Your task to perform on an android device: What is the recent news? Image 0: 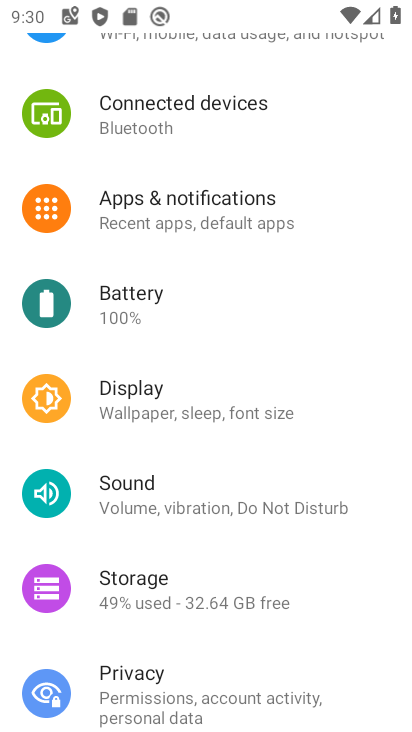
Step 0: press home button
Your task to perform on an android device: What is the recent news? Image 1: 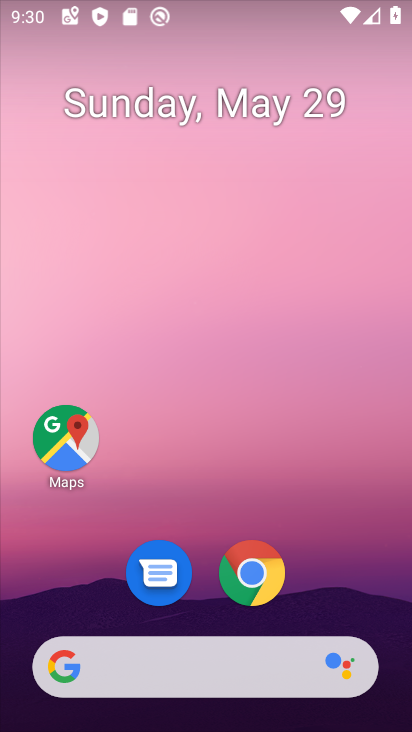
Step 1: drag from (325, 554) to (268, 15)
Your task to perform on an android device: What is the recent news? Image 2: 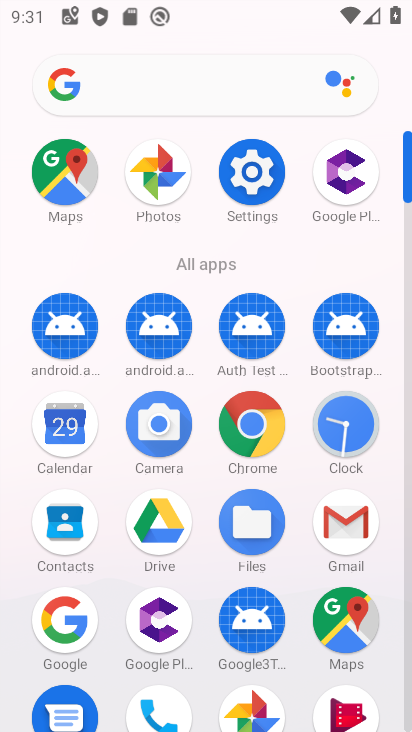
Step 2: click (56, 627)
Your task to perform on an android device: What is the recent news? Image 3: 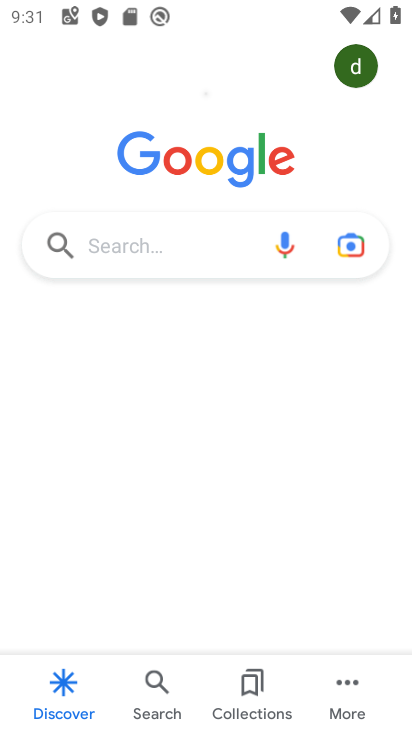
Step 3: click (170, 252)
Your task to perform on an android device: What is the recent news? Image 4: 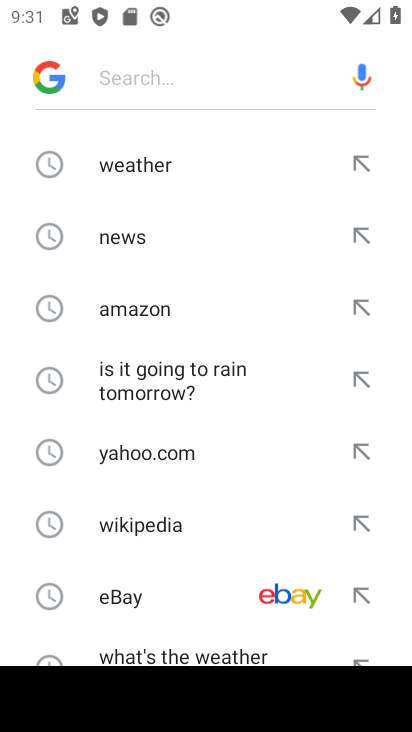
Step 4: type "what is the recent news ?"
Your task to perform on an android device: What is the recent news? Image 5: 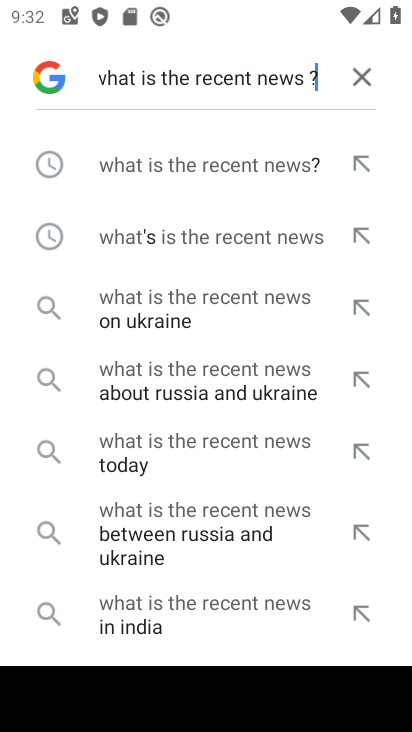
Step 5: click (232, 164)
Your task to perform on an android device: What is the recent news? Image 6: 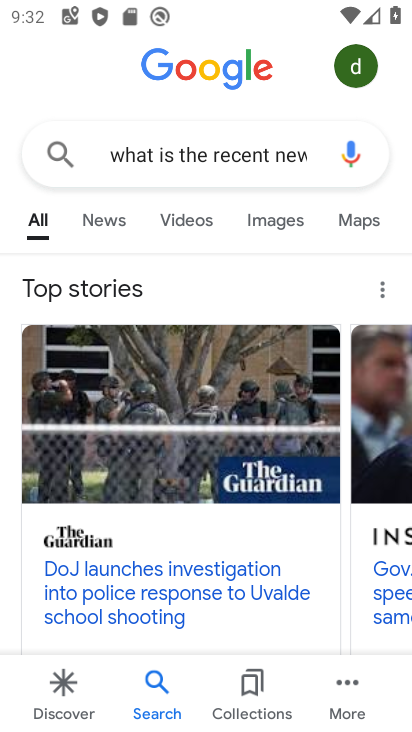
Step 6: task complete